Your task to perform on an android device: Go to sound settings Image 0: 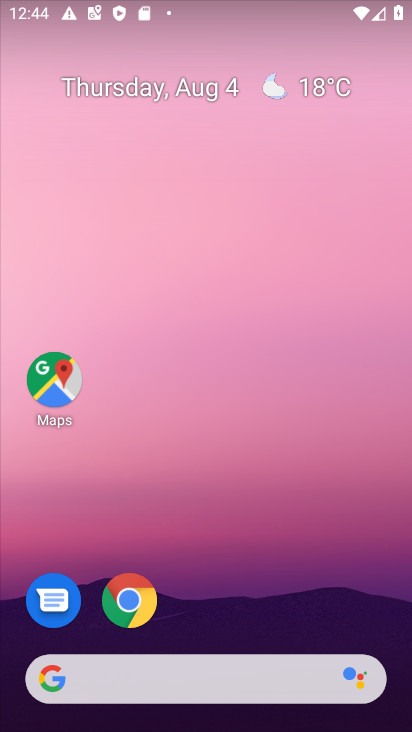
Step 0: press home button
Your task to perform on an android device: Go to sound settings Image 1: 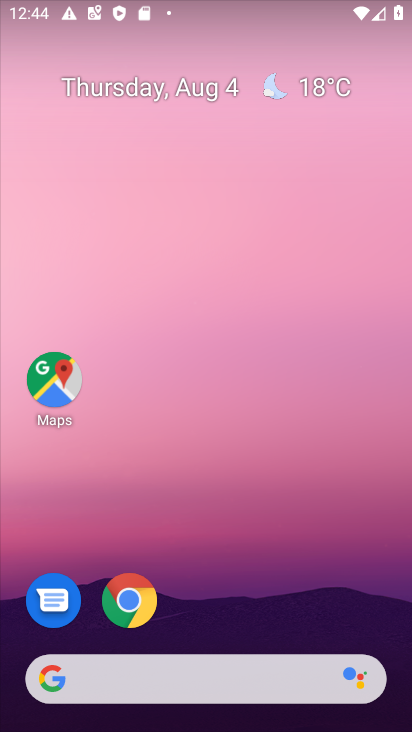
Step 1: drag from (137, 678) to (264, 112)
Your task to perform on an android device: Go to sound settings Image 2: 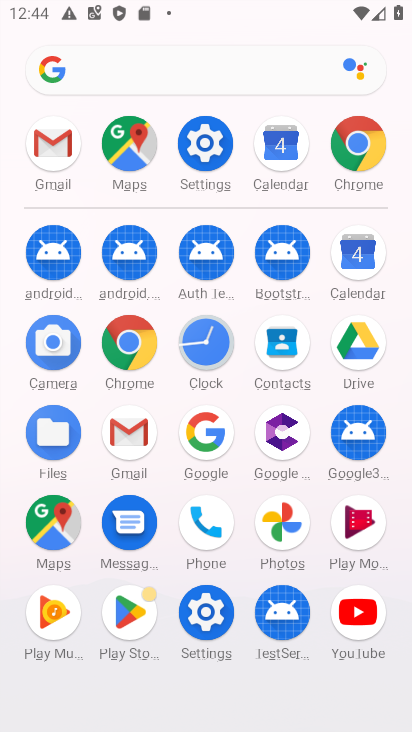
Step 2: click (202, 150)
Your task to perform on an android device: Go to sound settings Image 3: 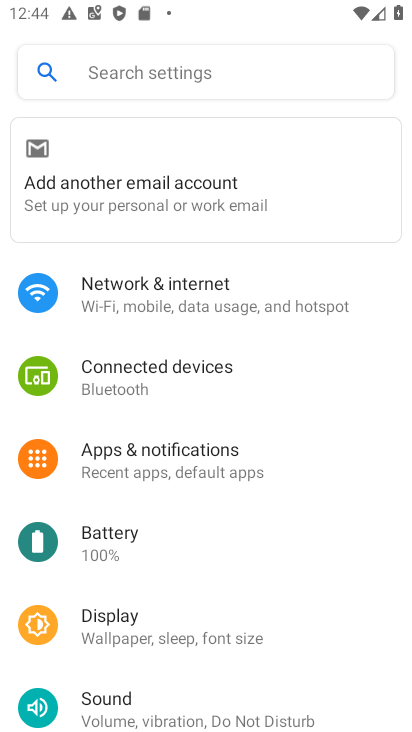
Step 3: drag from (277, 581) to (361, 155)
Your task to perform on an android device: Go to sound settings Image 4: 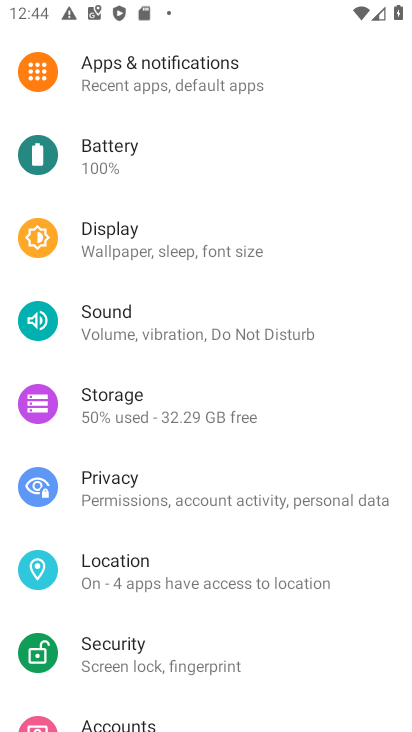
Step 4: click (139, 323)
Your task to perform on an android device: Go to sound settings Image 5: 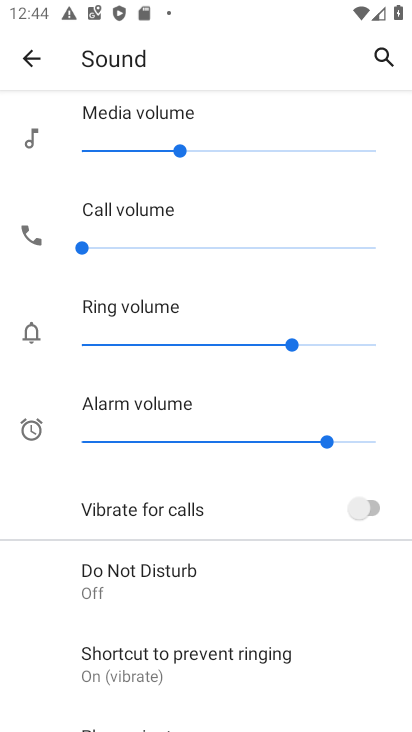
Step 5: task complete